Your task to perform on an android device: visit the assistant section in the google photos Image 0: 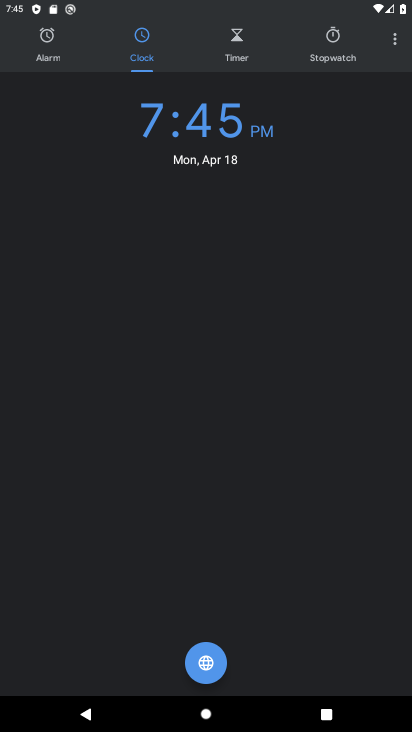
Step 0: press home button
Your task to perform on an android device: visit the assistant section in the google photos Image 1: 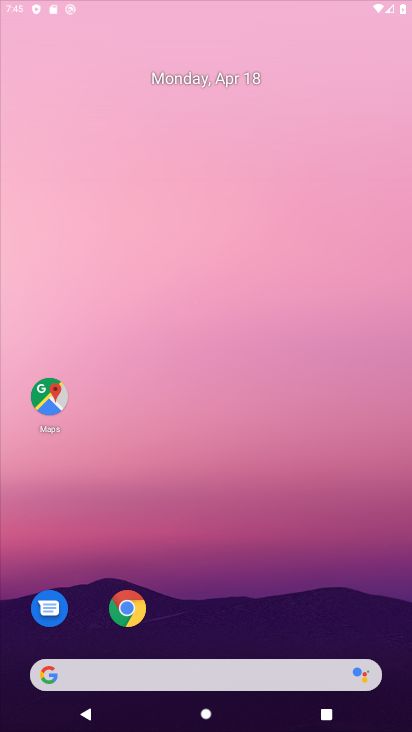
Step 1: drag from (227, 597) to (227, 161)
Your task to perform on an android device: visit the assistant section in the google photos Image 2: 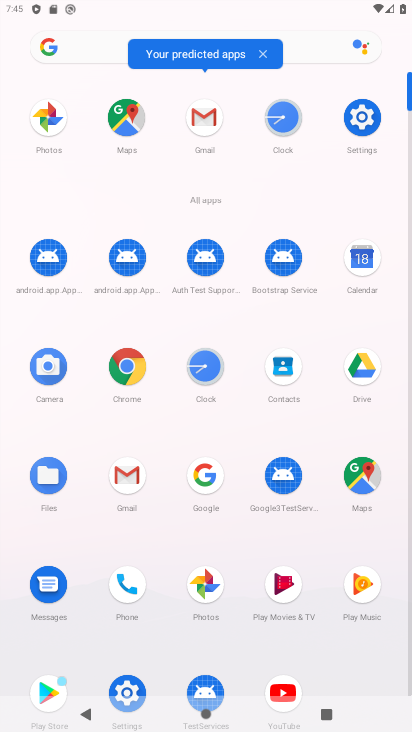
Step 2: click (52, 111)
Your task to perform on an android device: visit the assistant section in the google photos Image 3: 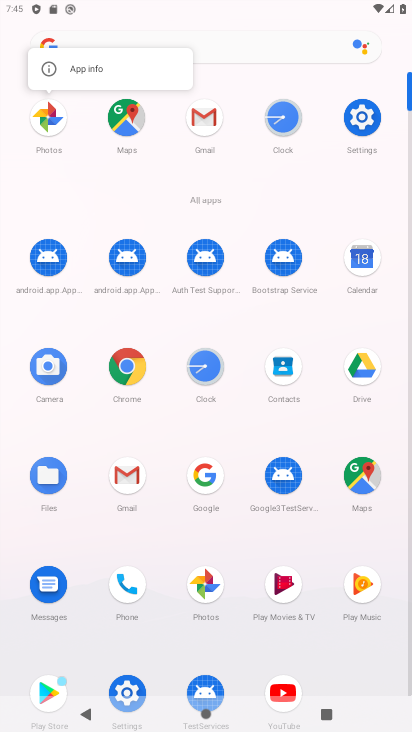
Step 3: click (47, 112)
Your task to perform on an android device: visit the assistant section in the google photos Image 4: 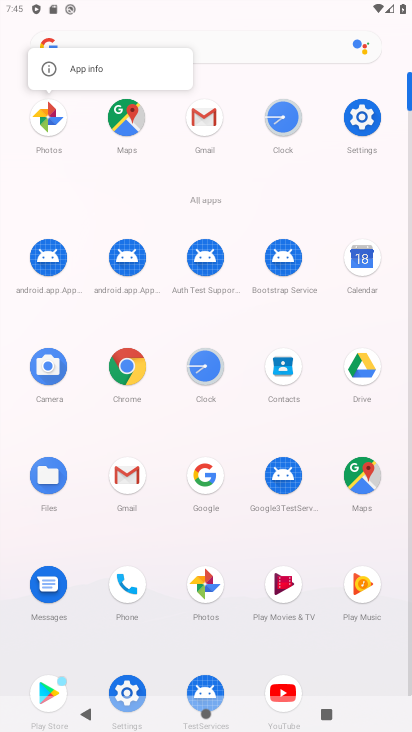
Step 4: click (50, 122)
Your task to perform on an android device: visit the assistant section in the google photos Image 5: 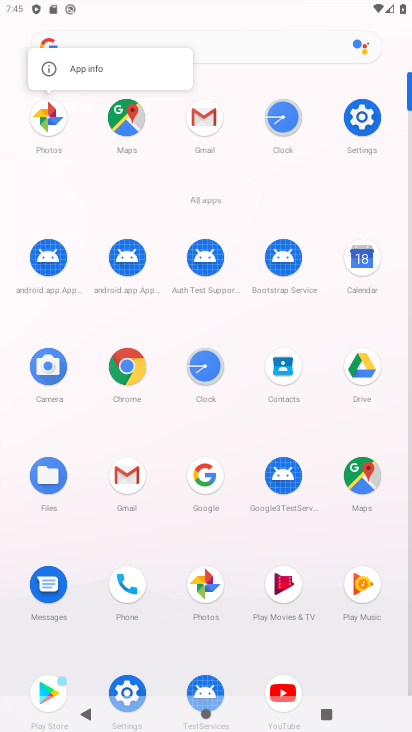
Step 5: click (54, 170)
Your task to perform on an android device: visit the assistant section in the google photos Image 6: 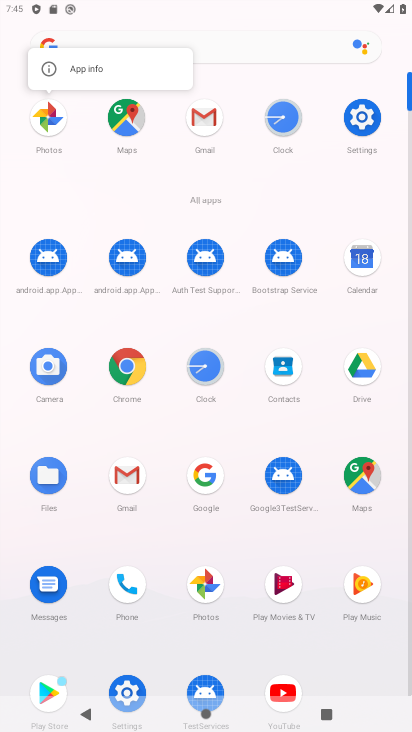
Step 6: click (47, 122)
Your task to perform on an android device: visit the assistant section in the google photos Image 7: 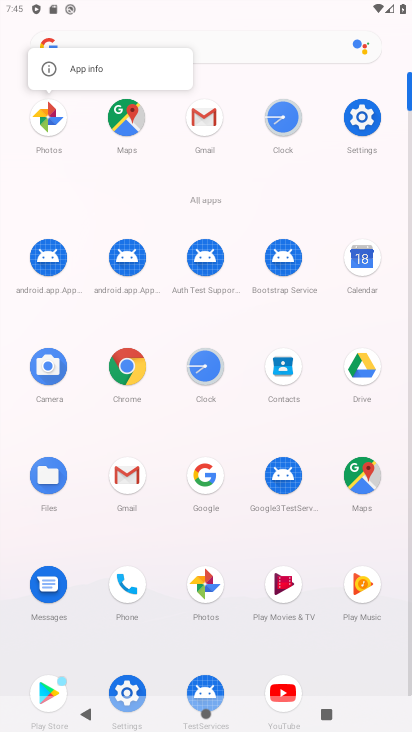
Step 7: click (47, 122)
Your task to perform on an android device: visit the assistant section in the google photos Image 8: 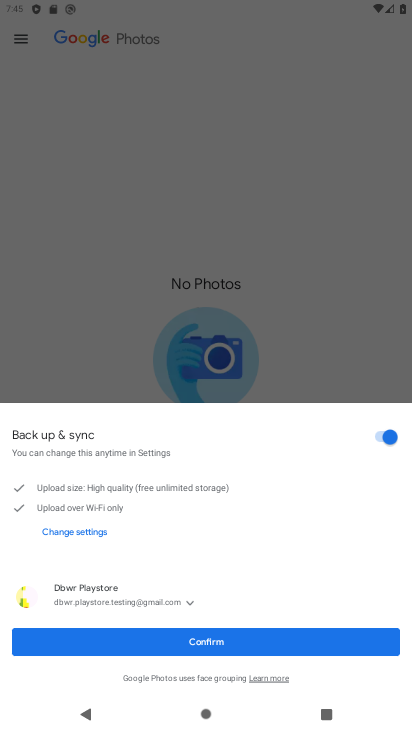
Step 8: click (209, 641)
Your task to perform on an android device: visit the assistant section in the google photos Image 9: 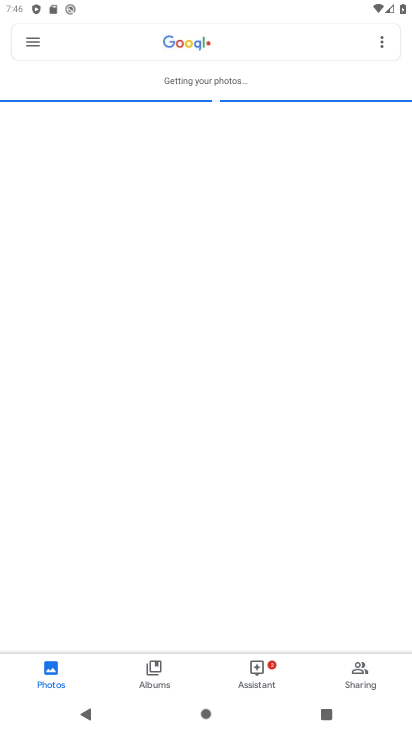
Step 9: click (255, 665)
Your task to perform on an android device: visit the assistant section in the google photos Image 10: 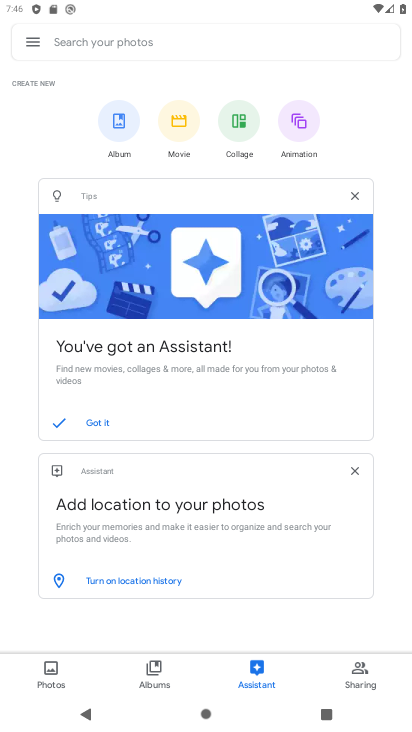
Step 10: task complete